Your task to perform on an android device: toggle notifications settings in the gmail app Image 0: 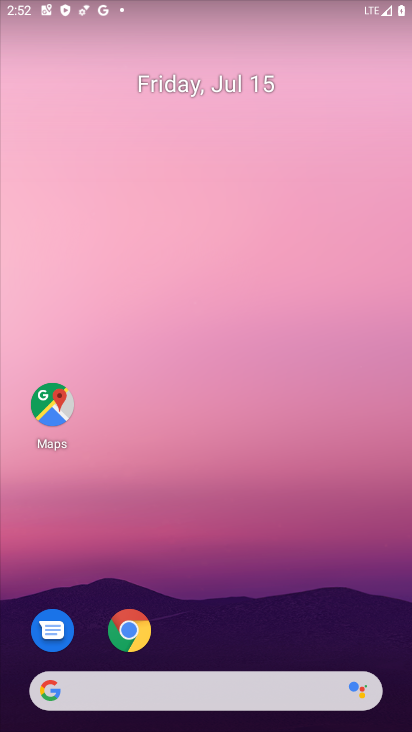
Step 0: drag from (206, 675) to (300, 58)
Your task to perform on an android device: toggle notifications settings in the gmail app Image 1: 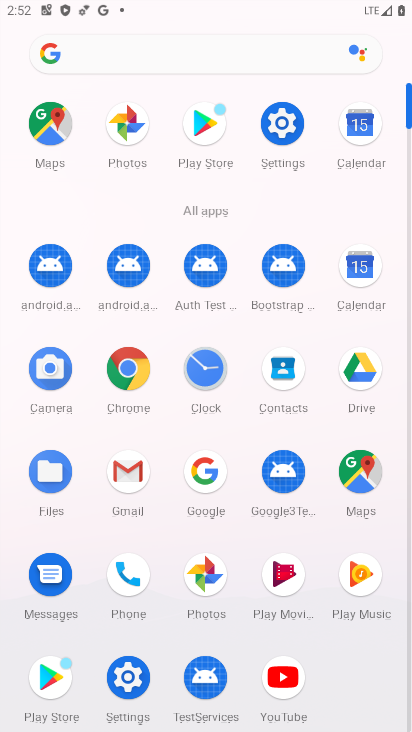
Step 1: click (125, 487)
Your task to perform on an android device: toggle notifications settings in the gmail app Image 2: 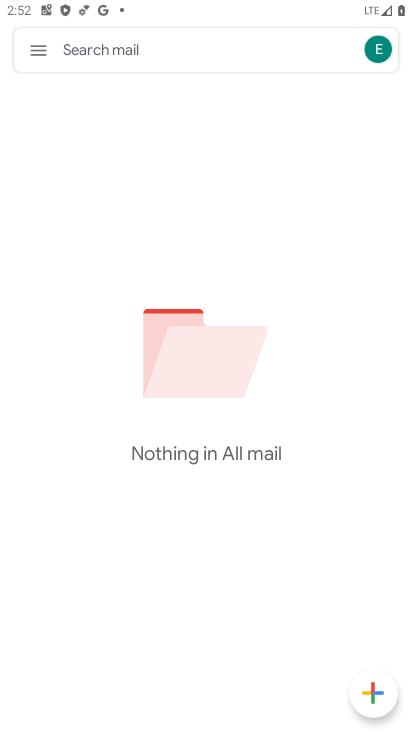
Step 2: click (35, 46)
Your task to perform on an android device: toggle notifications settings in the gmail app Image 3: 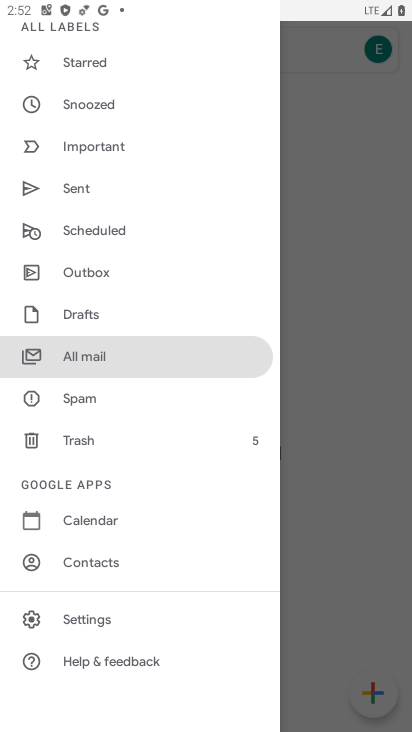
Step 3: click (78, 630)
Your task to perform on an android device: toggle notifications settings in the gmail app Image 4: 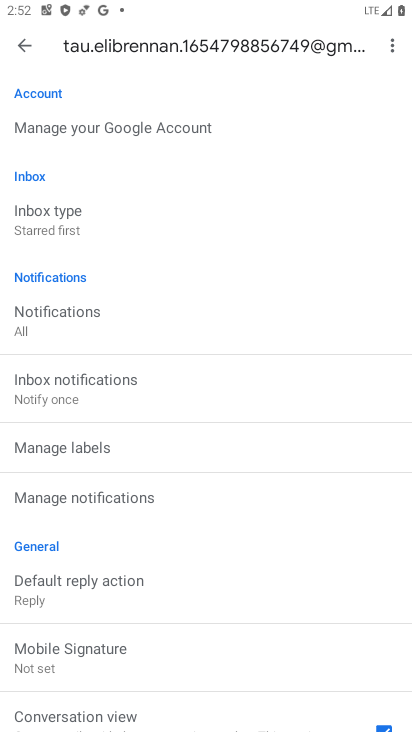
Step 4: click (71, 502)
Your task to perform on an android device: toggle notifications settings in the gmail app Image 5: 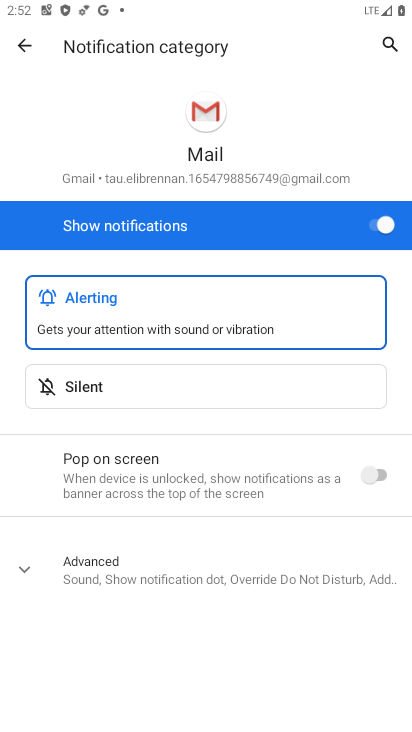
Step 5: click (376, 225)
Your task to perform on an android device: toggle notifications settings in the gmail app Image 6: 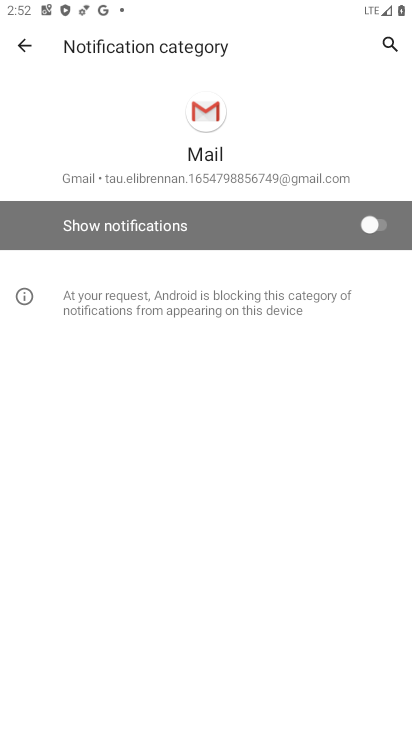
Step 6: task complete